Your task to perform on an android device: turn notification dots on Image 0: 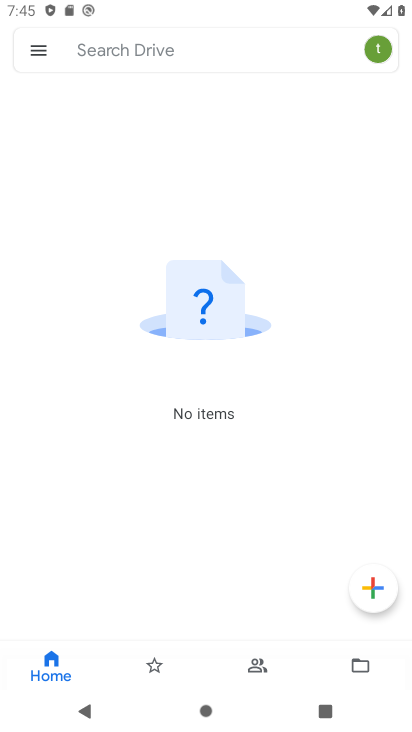
Step 0: press home button
Your task to perform on an android device: turn notification dots on Image 1: 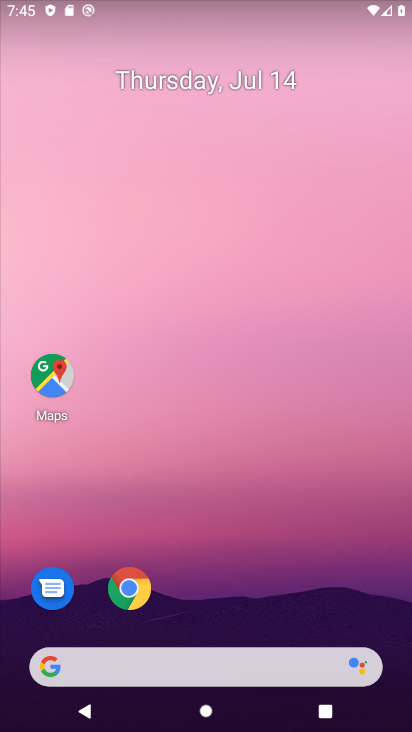
Step 1: drag from (242, 620) to (207, 142)
Your task to perform on an android device: turn notification dots on Image 2: 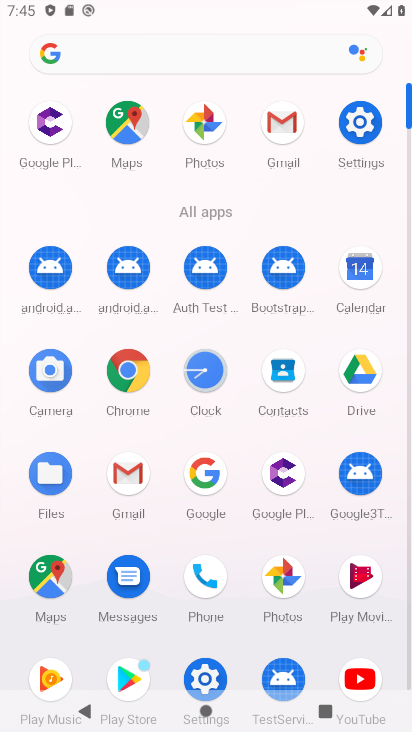
Step 2: click (347, 120)
Your task to perform on an android device: turn notification dots on Image 3: 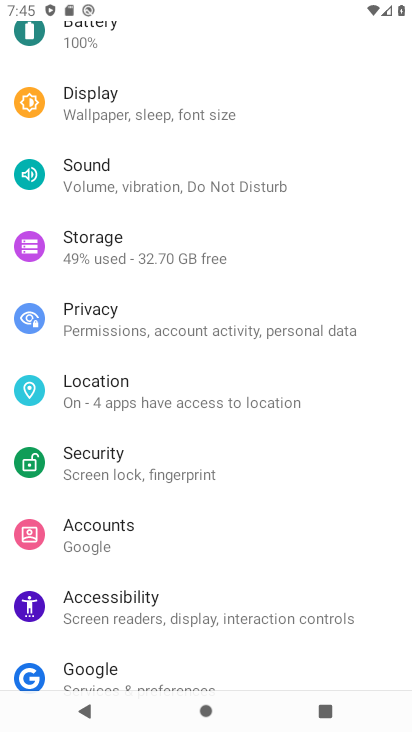
Step 3: drag from (170, 122) to (206, 578)
Your task to perform on an android device: turn notification dots on Image 4: 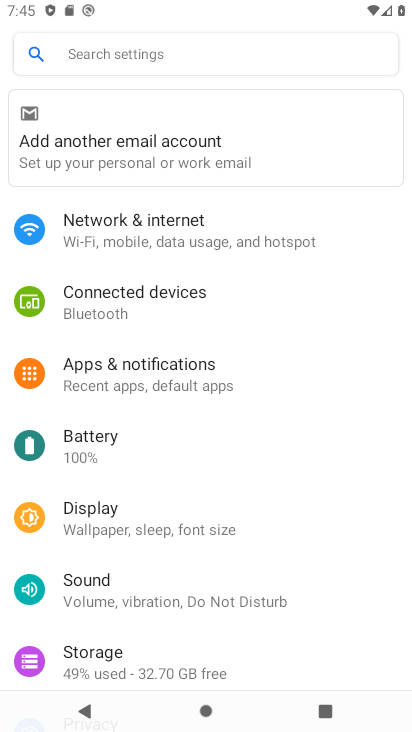
Step 4: click (189, 384)
Your task to perform on an android device: turn notification dots on Image 5: 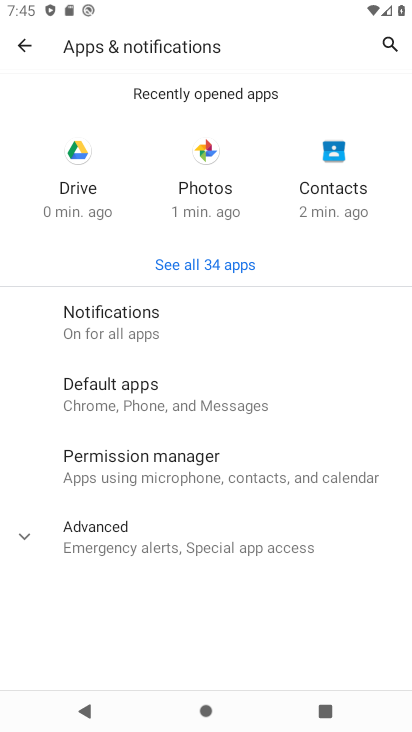
Step 5: click (156, 322)
Your task to perform on an android device: turn notification dots on Image 6: 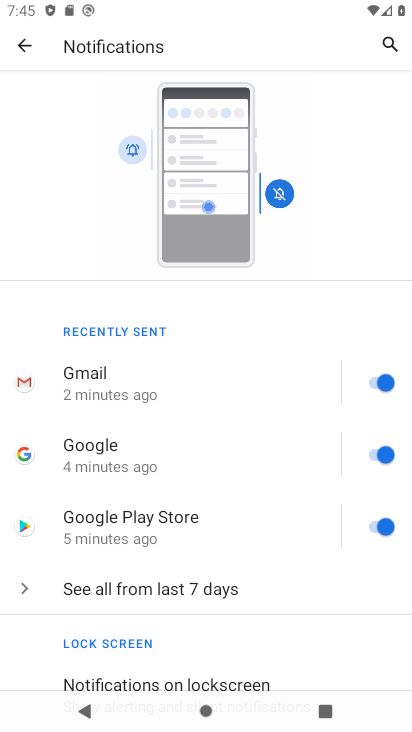
Step 6: drag from (294, 614) to (248, 154)
Your task to perform on an android device: turn notification dots on Image 7: 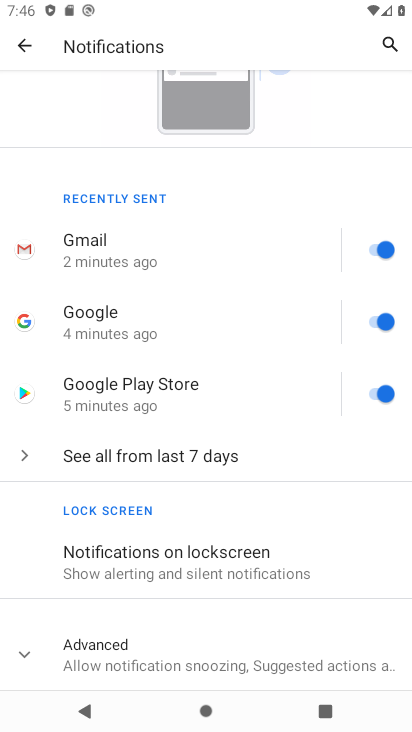
Step 7: click (214, 666)
Your task to perform on an android device: turn notification dots on Image 8: 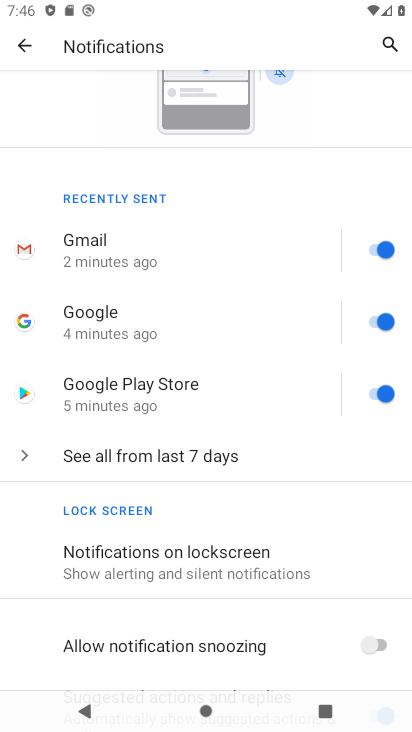
Step 8: task complete